Your task to perform on an android device: turn pop-ups off in chrome Image 0: 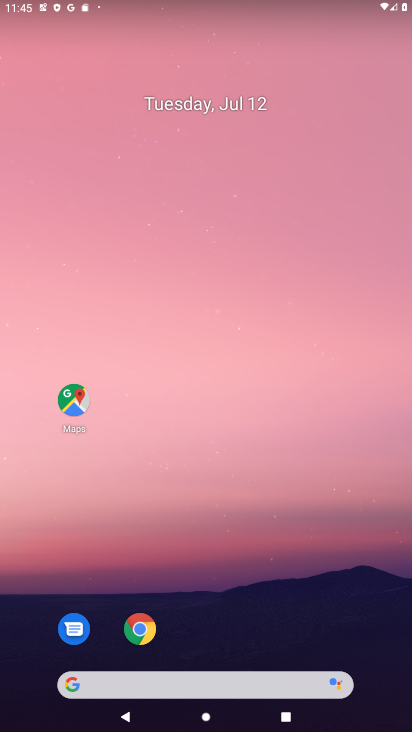
Step 0: drag from (287, 370) to (277, 112)
Your task to perform on an android device: turn pop-ups off in chrome Image 1: 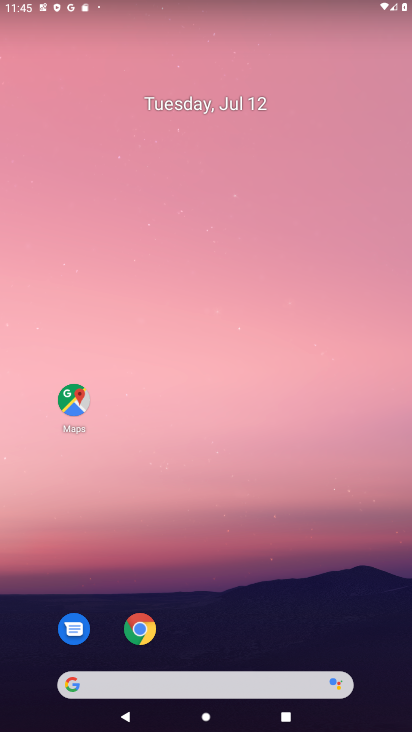
Step 1: drag from (224, 230) to (231, 12)
Your task to perform on an android device: turn pop-ups off in chrome Image 2: 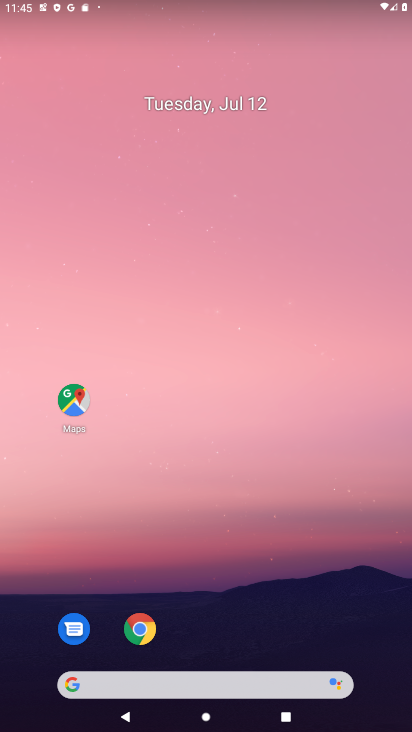
Step 2: click (251, 6)
Your task to perform on an android device: turn pop-ups off in chrome Image 3: 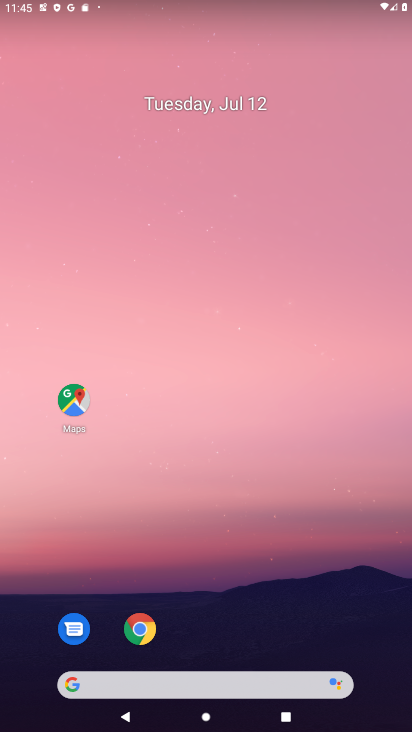
Step 3: drag from (309, 575) to (263, 125)
Your task to perform on an android device: turn pop-ups off in chrome Image 4: 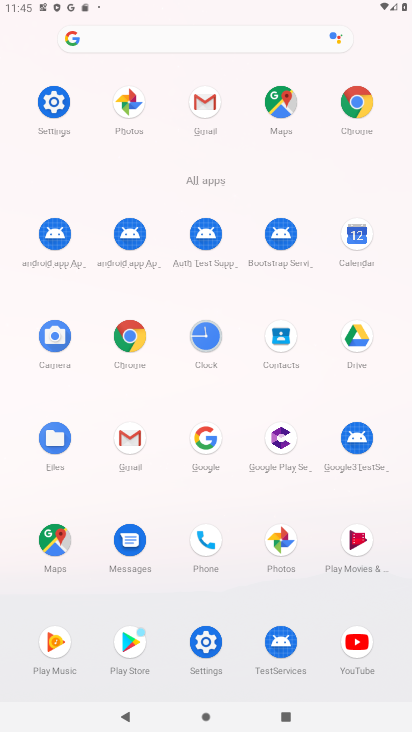
Step 4: click (354, 102)
Your task to perform on an android device: turn pop-ups off in chrome Image 5: 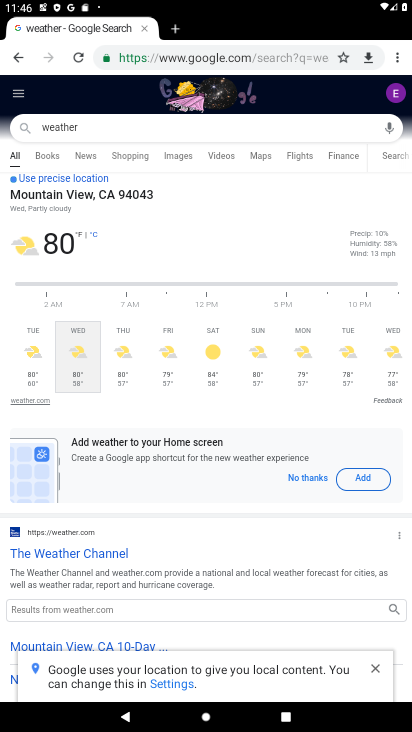
Step 5: drag from (397, 57) to (300, 347)
Your task to perform on an android device: turn pop-ups off in chrome Image 6: 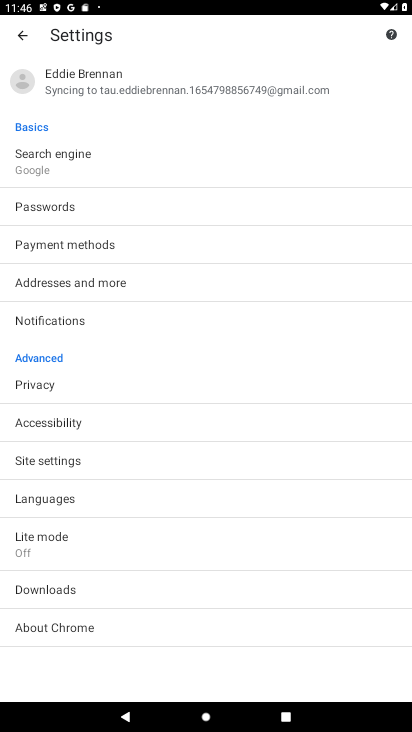
Step 6: click (59, 467)
Your task to perform on an android device: turn pop-ups off in chrome Image 7: 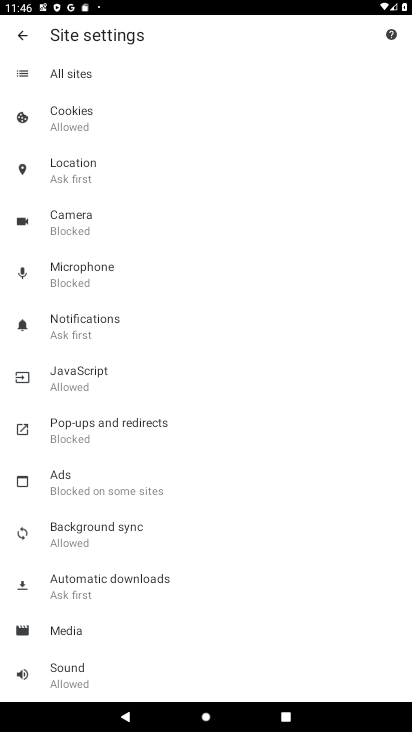
Step 7: click (65, 431)
Your task to perform on an android device: turn pop-ups off in chrome Image 8: 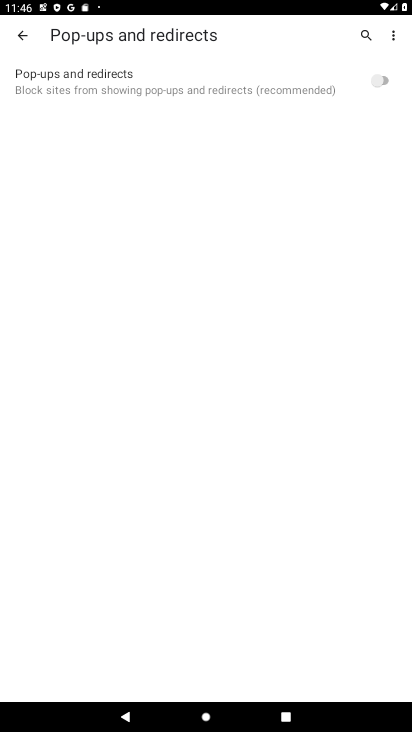
Step 8: task complete